Your task to perform on an android device: stop showing notifications on the lock screen Image 0: 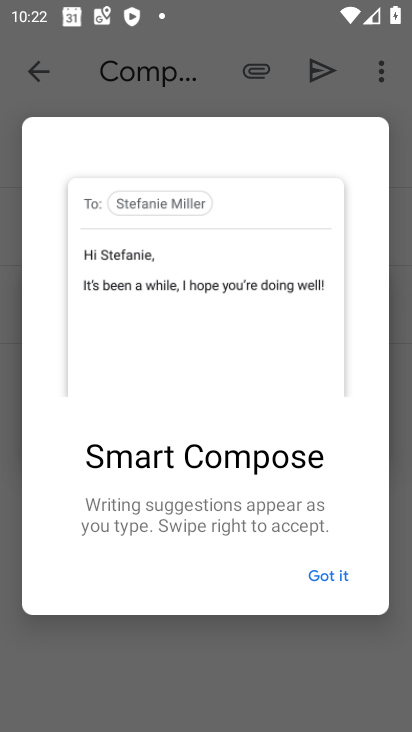
Step 0: press home button
Your task to perform on an android device: stop showing notifications on the lock screen Image 1: 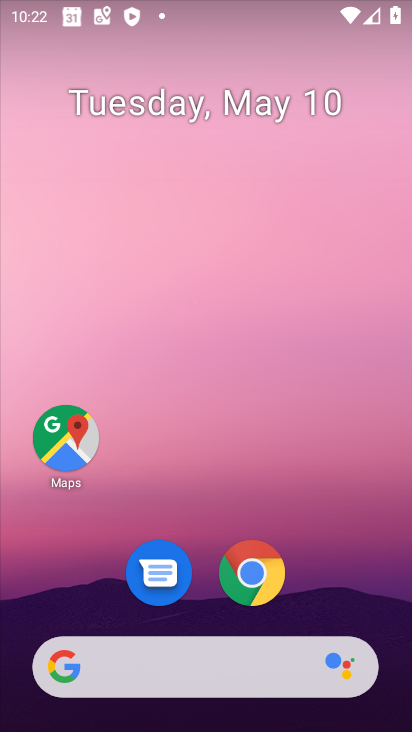
Step 1: drag from (311, 547) to (228, 95)
Your task to perform on an android device: stop showing notifications on the lock screen Image 2: 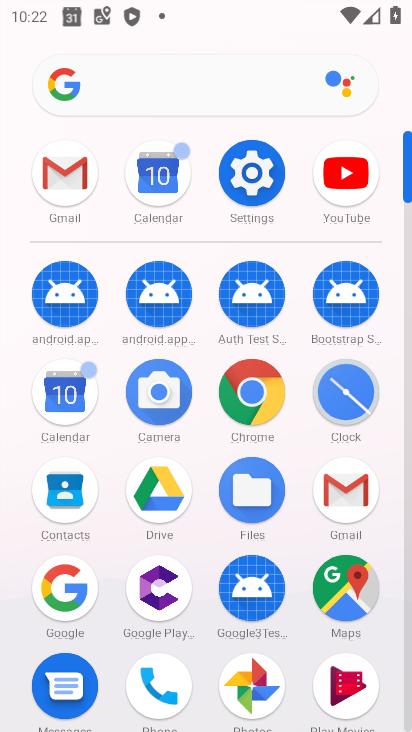
Step 2: click (239, 177)
Your task to perform on an android device: stop showing notifications on the lock screen Image 3: 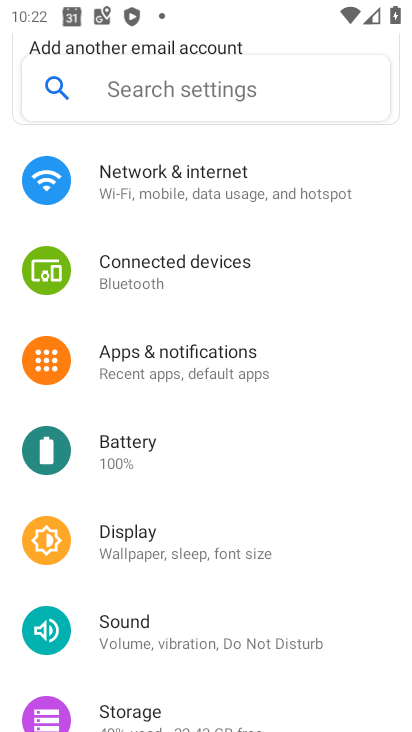
Step 3: click (160, 350)
Your task to perform on an android device: stop showing notifications on the lock screen Image 4: 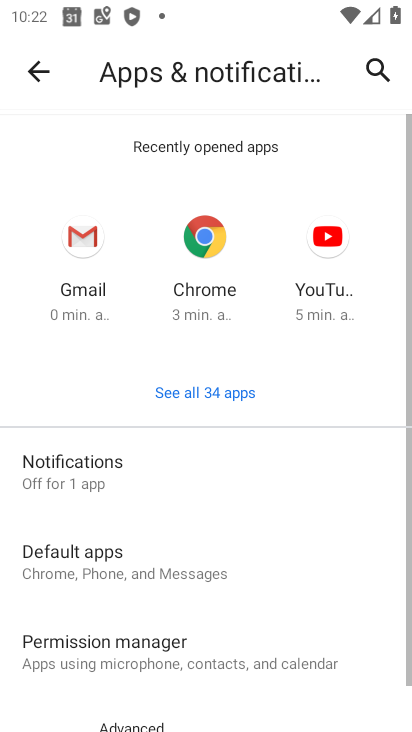
Step 4: click (86, 457)
Your task to perform on an android device: stop showing notifications on the lock screen Image 5: 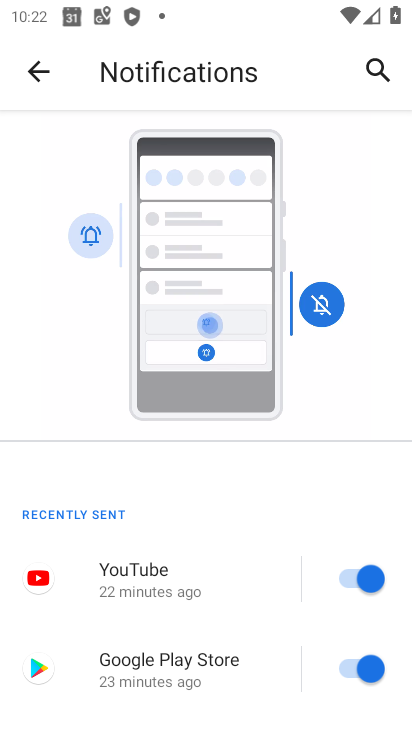
Step 5: drag from (215, 572) to (112, 217)
Your task to perform on an android device: stop showing notifications on the lock screen Image 6: 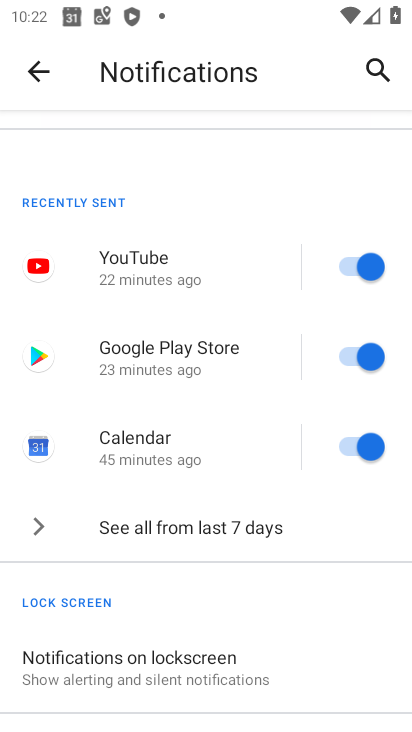
Step 6: click (140, 656)
Your task to perform on an android device: stop showing notifications on the lock screen Image 7: 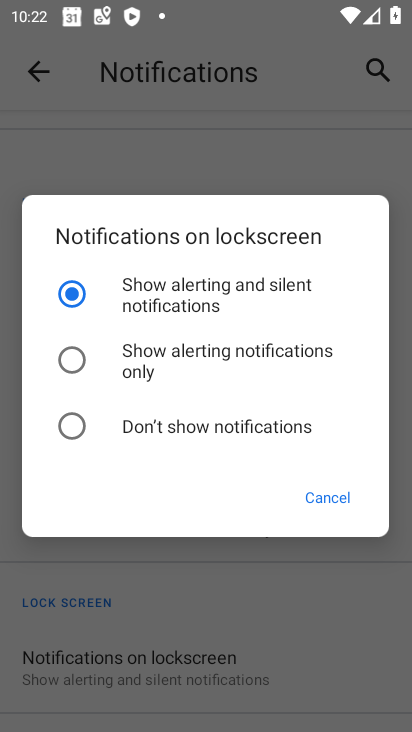
Step 7: click (63, 427)
Your task to perform on an android device: stop showing notifications on the lock screen Image 8: 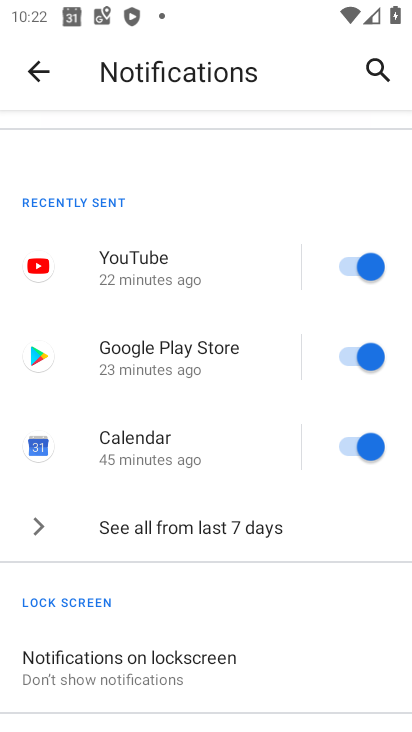
Step 8: task complete